Your task to perform on an android device: turn vacation reply on in the gmail app Image 0: 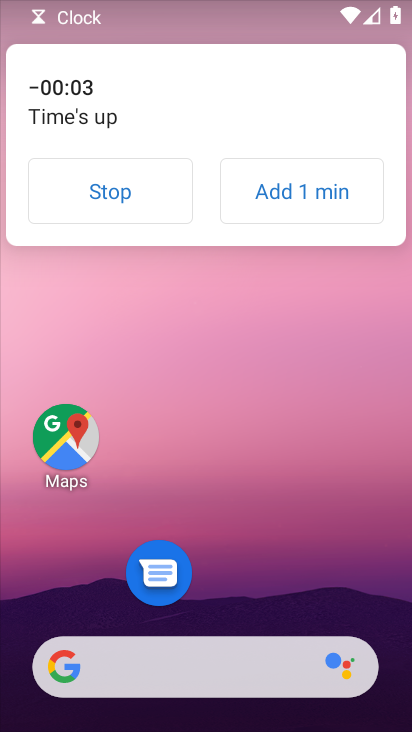
Step 0: click (95, 182)
Your task to perform on an android device: turn vacation reply on in the gmail app Image 1: 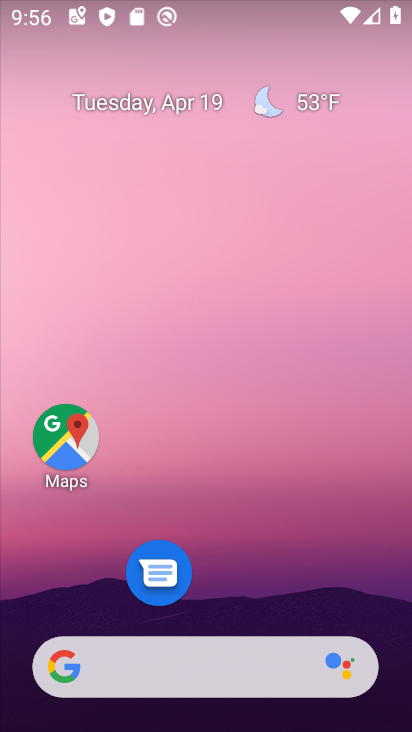
Step 1: drag from (240, 575) to (205, 100)
Your task to perform on an android device: turn vacation reply on in the gmail app Image 2: 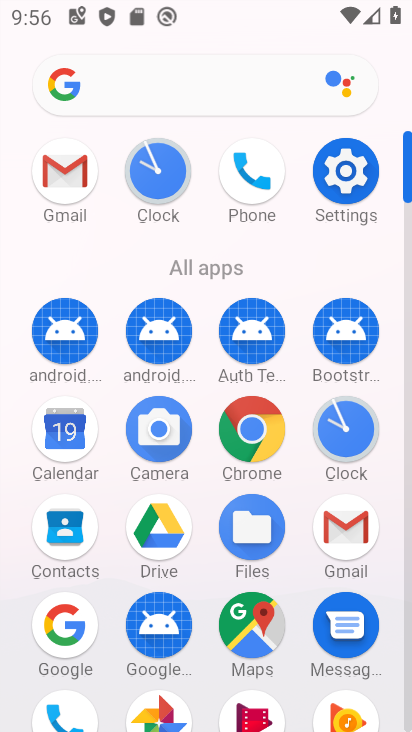
Step 2: click (327, 510)
Your task to perform on an android device: turn vacation reply on in the gmail app Image 3: 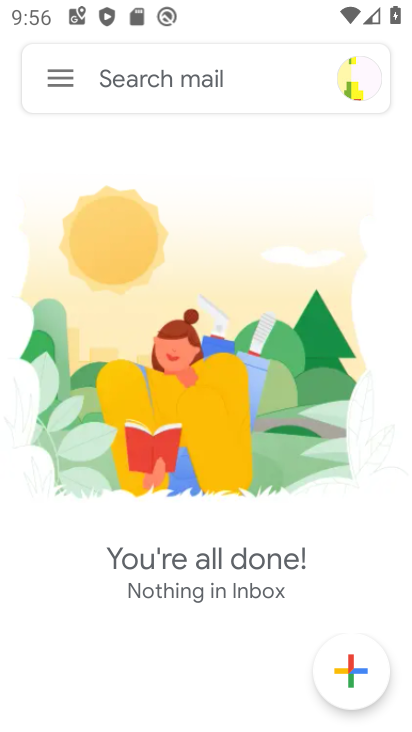
Step 3: click (53, 82)
Your task to perform on an android device: turn vacation reply on in the gmail app Image 4: 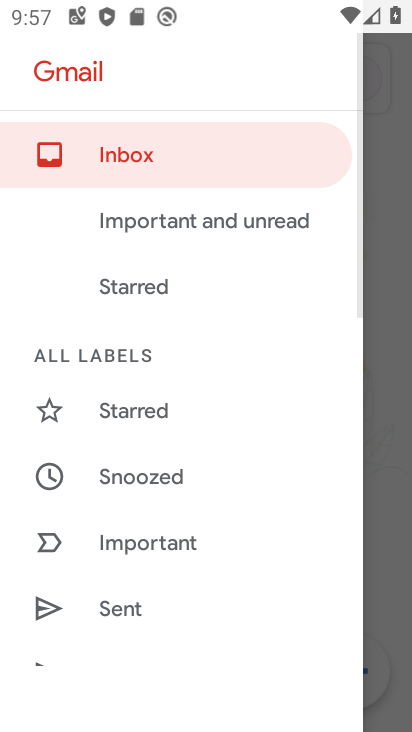
Step 4: drag from (207, 580) to (213, 183)
Your task to perform on an android device: turn vacation reply on in the gmail app Image 5: 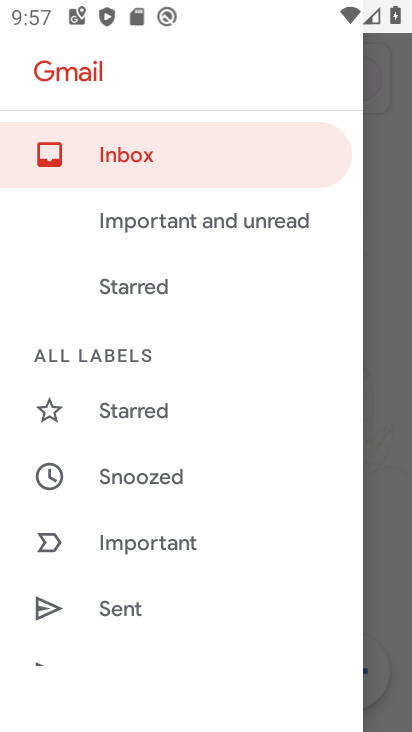
Step 5: drag from (183, 576) to (192, 190)
Your task to perform on an android device: turn vacation reply on in the gmail app Image 6: 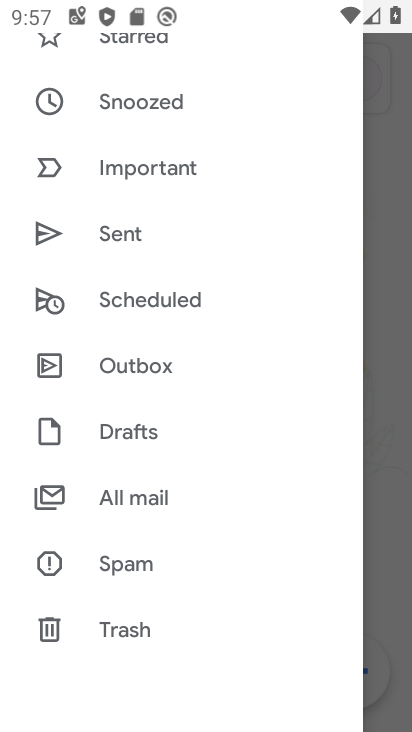
Step 6: drag from (184, 578) to (198, 267)
Your task to perform on an android device: turn vacation reply on in the gmail app Image 7: 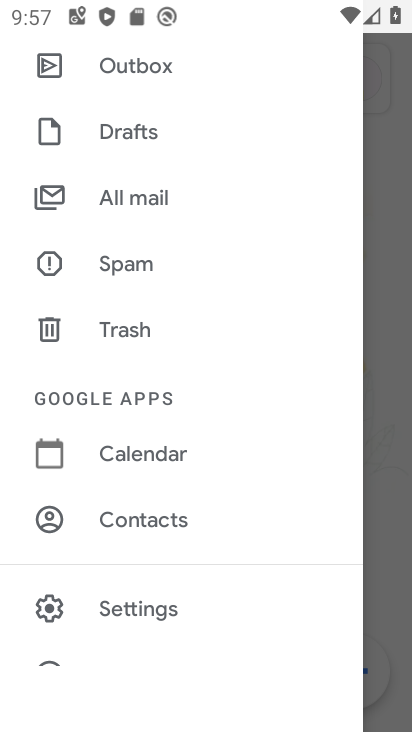
Step 7: click (161, 603)
Your task to perform on an android device: turn vacation reply on in the gmail app Image 8: 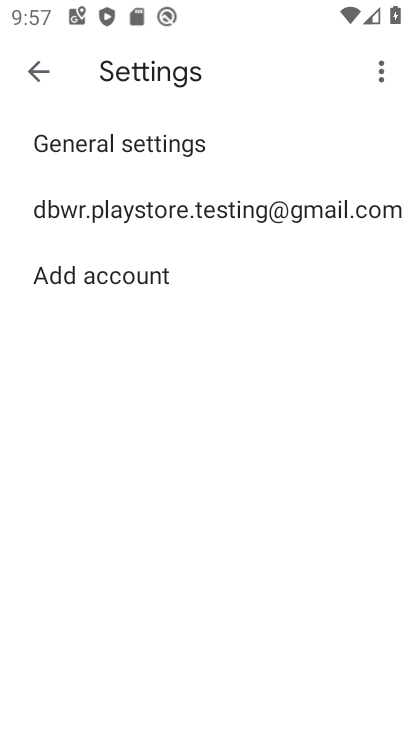
Step 8: click (151, 217)
Your task to perform on an android device: turn vacation reply on in the gmail app Image 9: 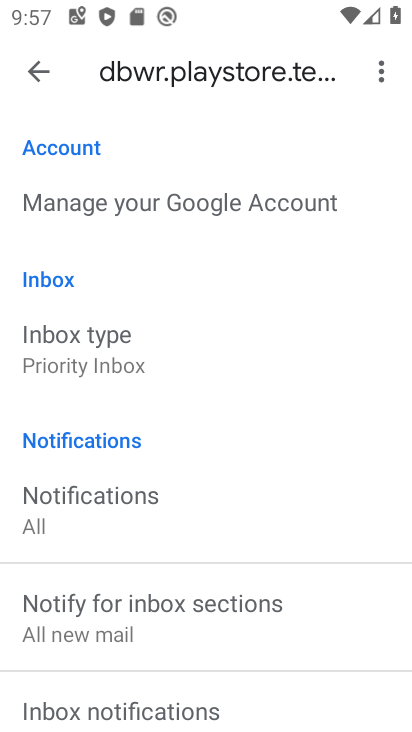
Step 9: drag from (241, 523) to (247, 248)
Your task to perform on an android device: turn vacation reply on in the gmail app Image 10: 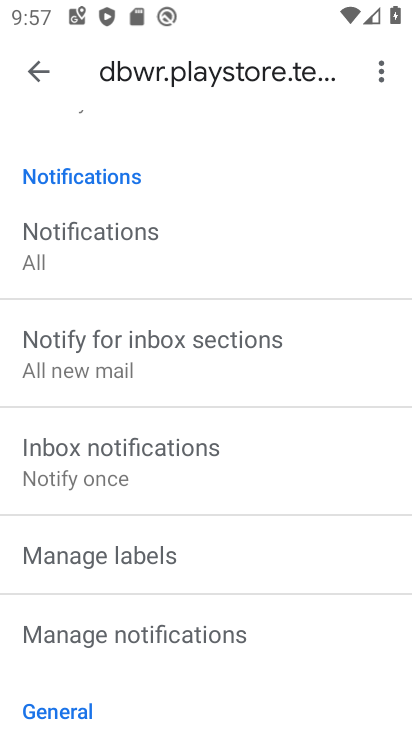
Step 10: drag from (257, 584) to (271, 238)
Your task to perform on an android device: turn vacation reply on in the gmail app Image 11: 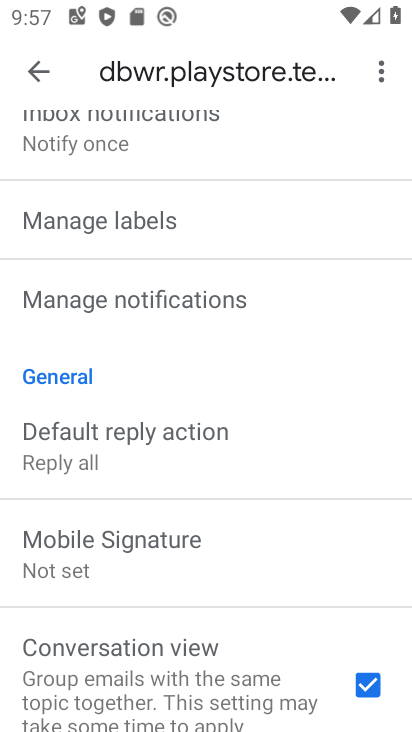
Step 11: drag from (225, 591) to (281, 239)
Your task to perform on an android device: turn vacation reply on in the gmail app Image 12: 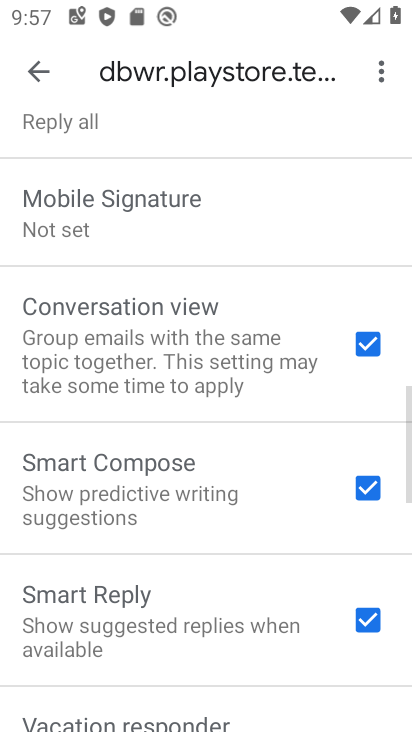
Step 12: drag from (242, 636) to (246, 337)
Your task to perform on an android device: turn vacation reply on in the gmail app Image 13: 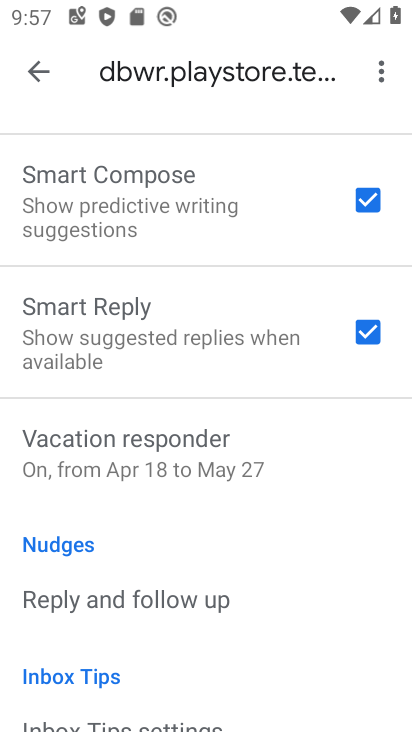
Step 13: click (222, 447)
Your task to perform on an android device: turn vacation reply on in the gmail app Image 14: 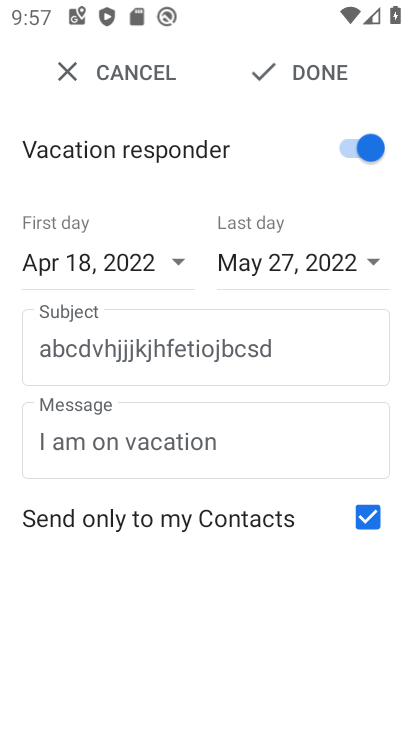
Step 14: task complete